Your task to perform on an android device: turn notification dots on Image 0: 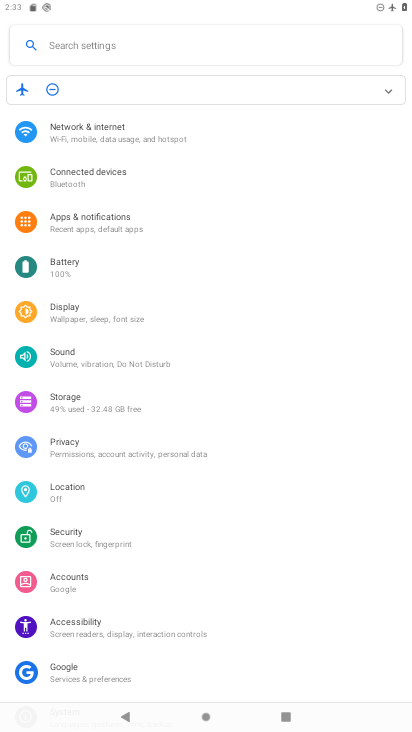
Step 0: click (111, 221)
Your task to perform on an android device: turn notification dots on Image 1: 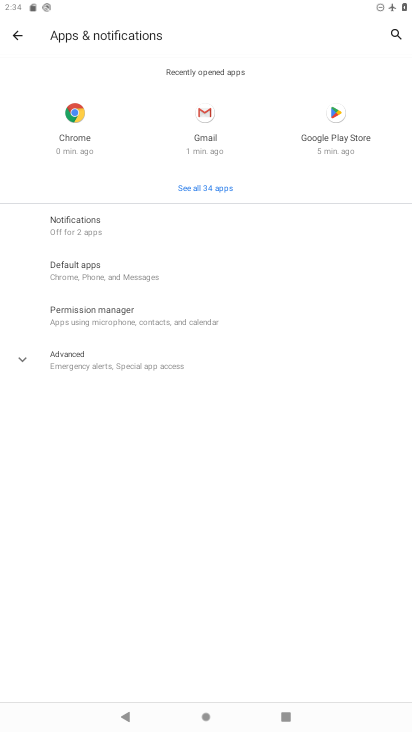
Step 1: click (83, 366)
Your task to perform on an android device: turn notification dots on Image 2: 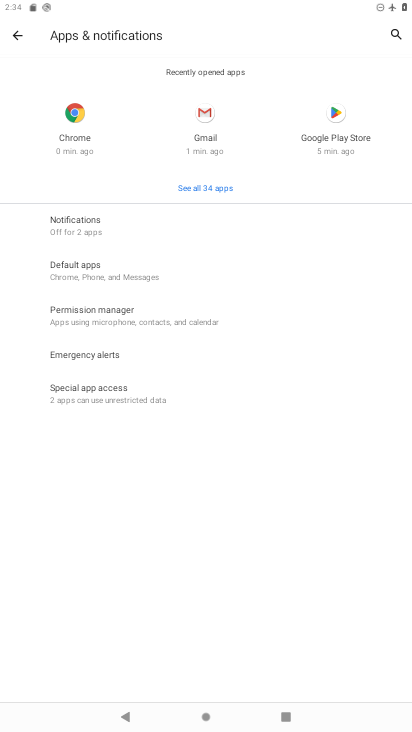
Step 2: click (73, 220)
Your task to perform on an android device: turn notification dots on Image 3: 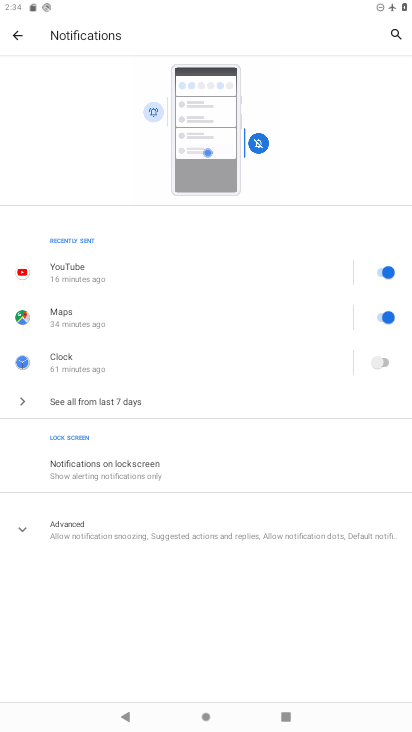
Step 3: click (109, 536)
Your task to perform on an android device: turn notification dots on Image 4: 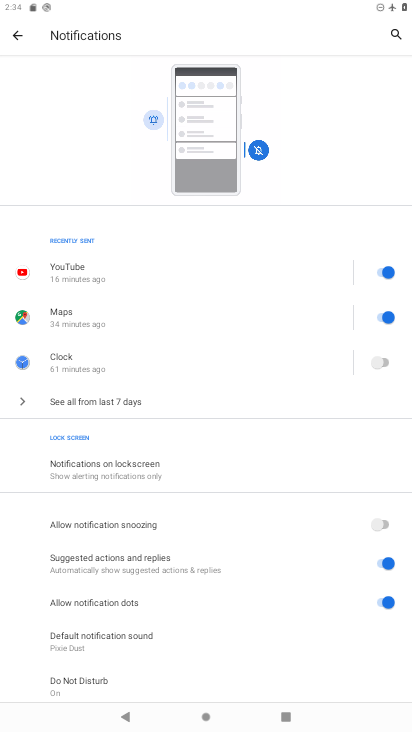
Step 4: task complete